Your task to perform on an android device: choose inbox layout in the gmail app Image 0: 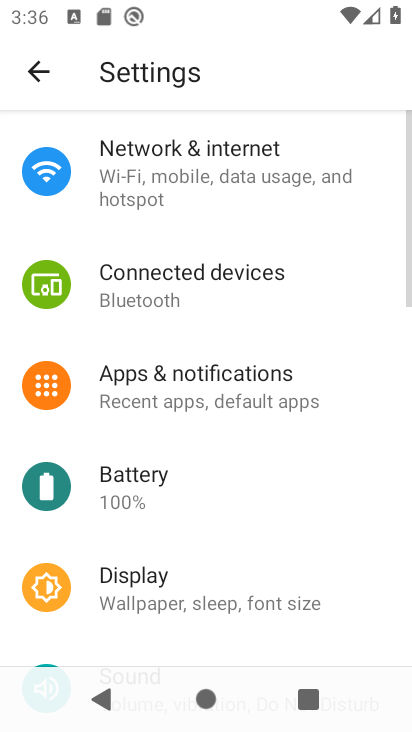
Step 0: press home button
Your task to perform on an android device: choose inbox layout in the gmail app Image 1: 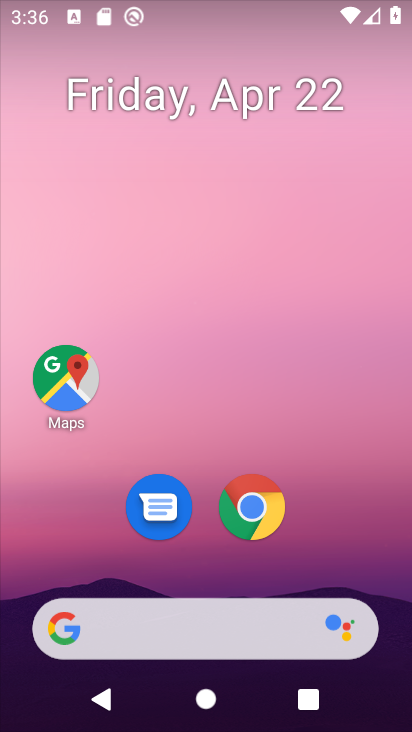
Step 1: drag from (380, 206) to (401, 36)
Your task to perform on an android device: choose inbox layout in the gmail app Image 2: 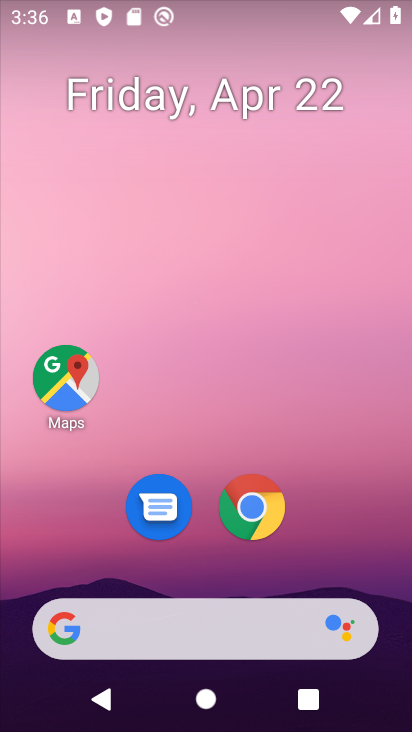
Step 2: drag from (370, 464) to (403, 49)
Your task to perform on an android device: choose inbox layout in the gmail app Image 3: 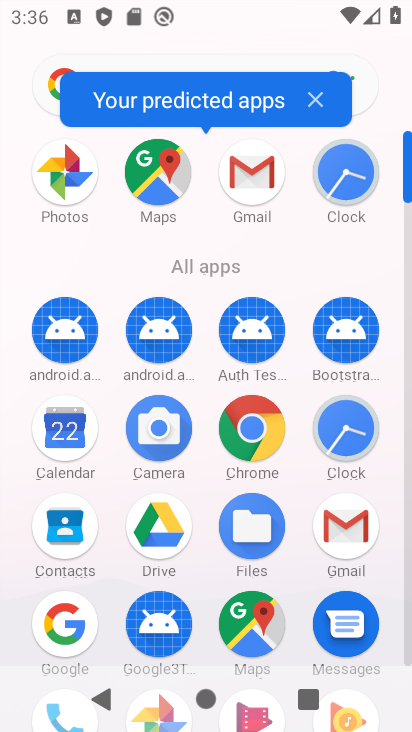
Step 3: click (242, 179)
Your task to perform on an android device: choose inbox layout in the gmail app Image 4: 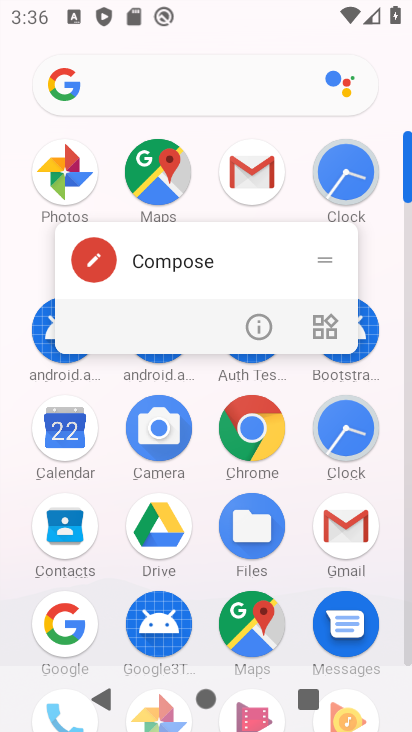
Step 4: click (242, 179)
Your task to perform on an android device: choose inbox layout in the gmail app Image 5: 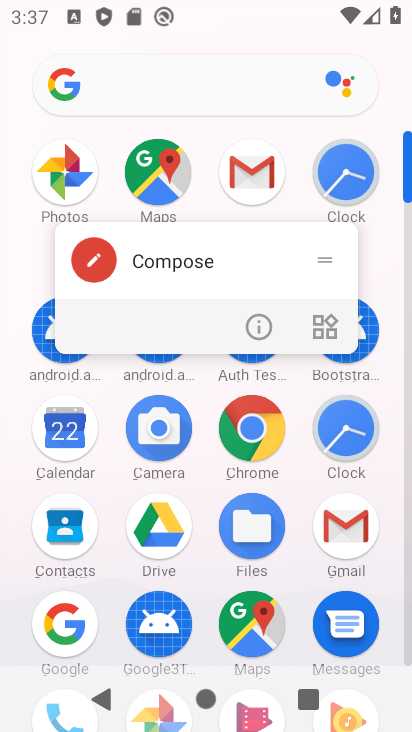
Step 5: click (242, 178)
Your task to perform on an android device: choose inbox layout in the gmail app Image 6: 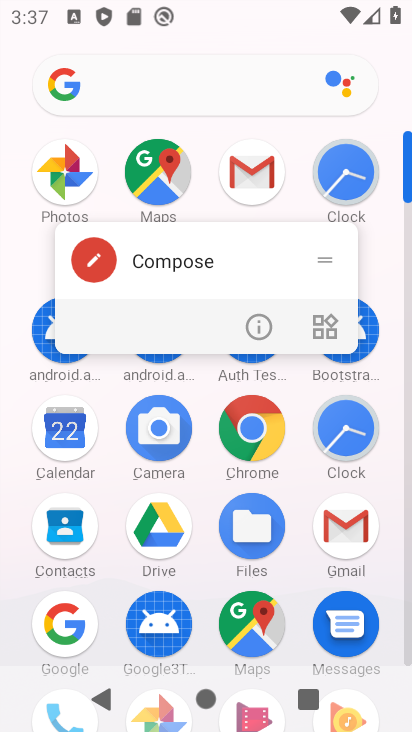
Step 6: click (242, 177)
Your task to perform on an android device: choose inbox layout in the gmail app Image 7: 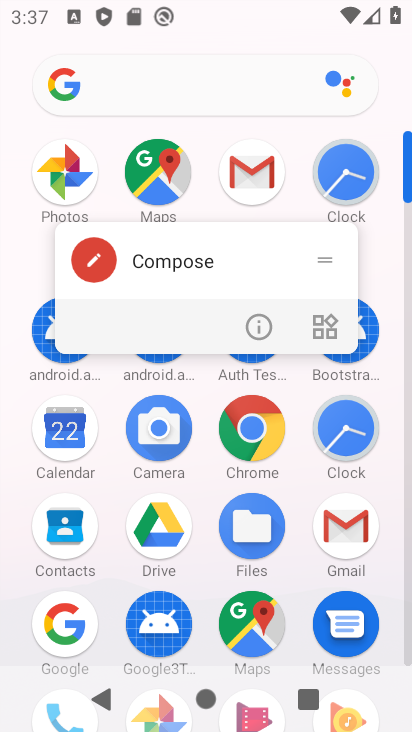
Step 7: click (250, 161)
Your task to perform on an android device: choose inbox layout in the gmail app Image 8: 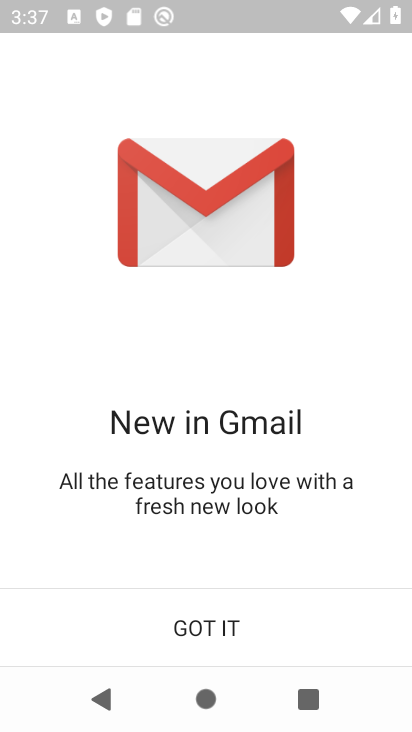
Step 8: click (192, 626)
Your task to perform on an android device: choose inbox layout in the gmail app Image 9: 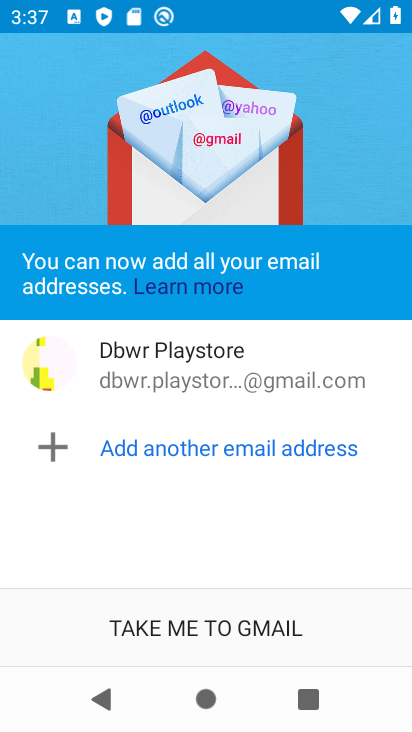
Step 9: click (250, 630)
Your task to perform on an android device: choose inbox layout in the gmail app Image 10: 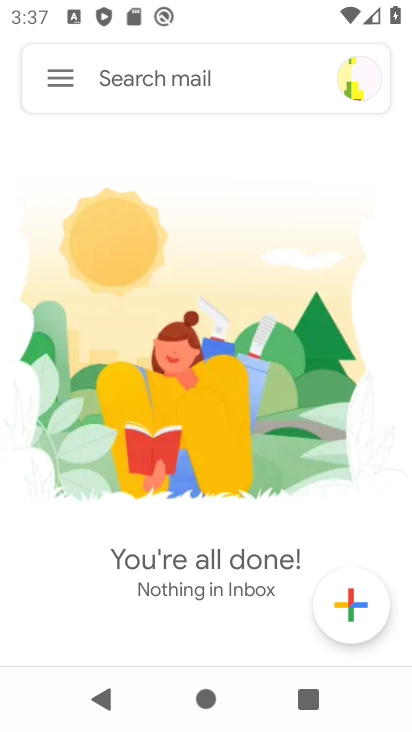
Step 10: click (62, 86)
Your task to perform on an android device: choose inbox layout in the gmail app Image 11: 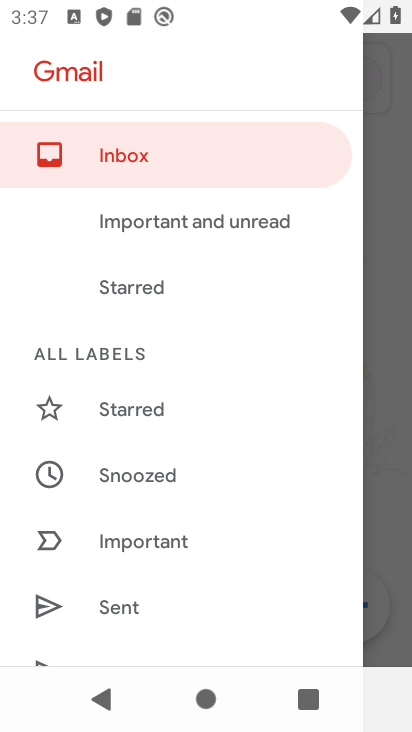
Step 11: drag from (189, 461) to (168, 107)
Your task to perform on an android device: choose inbox layout in the gmail app Image 12: 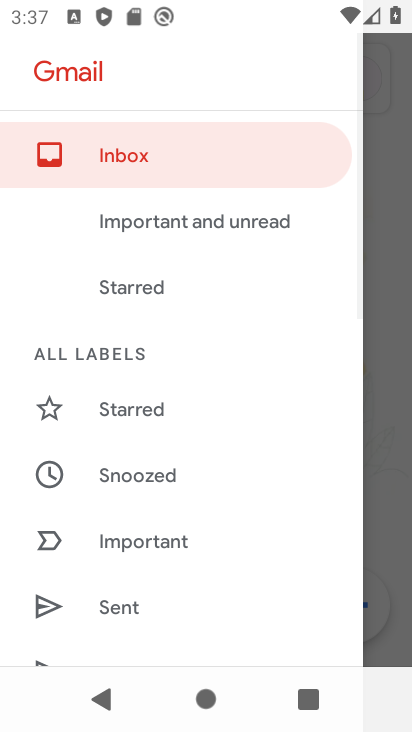
Step 12: drag from (155, 603) to (179, 194)
Your task to perform on an android device: choose inbox layout in the gmail app Image 13: 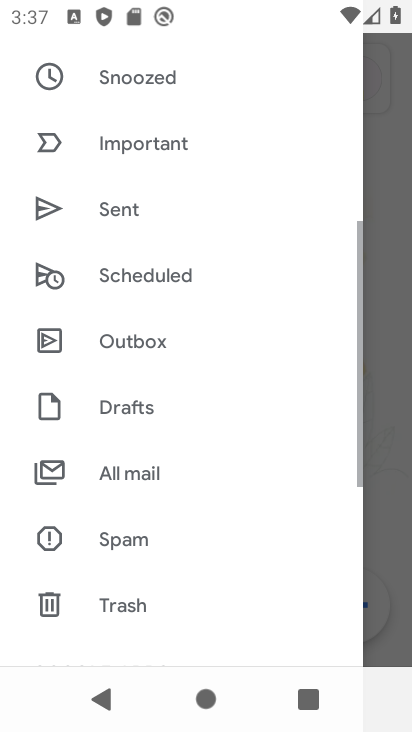
Step 13: drag from (97, 577) to (126, 146)
Your task to perform on an android device: choose inbox layout in the gmail app Image 14: 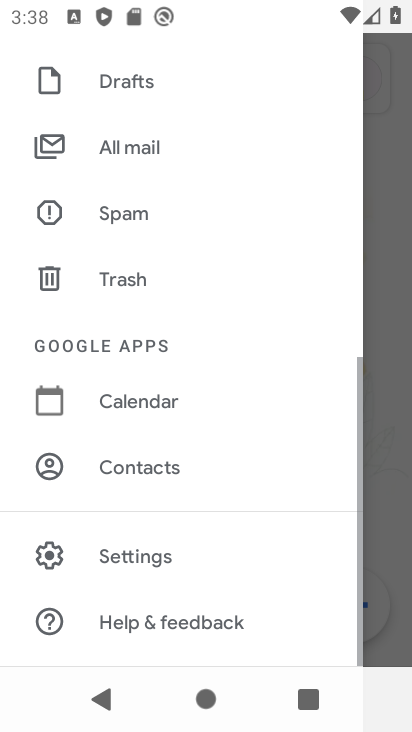
Step 14: click (111, 556)
Your task to perform on an android device: choose inbox layout in the gmail app Image 15: 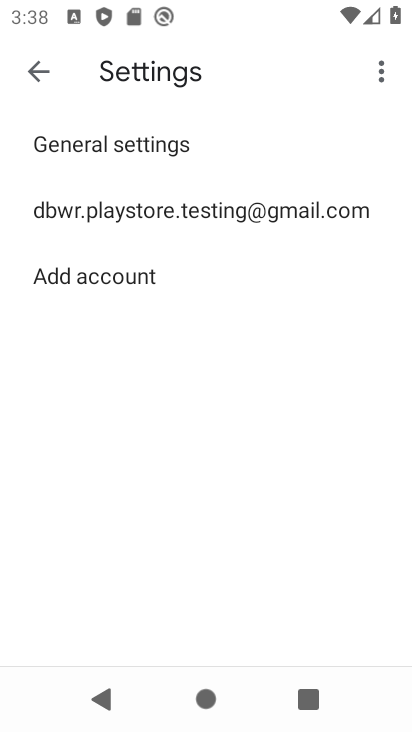
Step 15: click (131, 202)
Your task to perform on an android device: choose inbox layout in the gmail app Image 16: 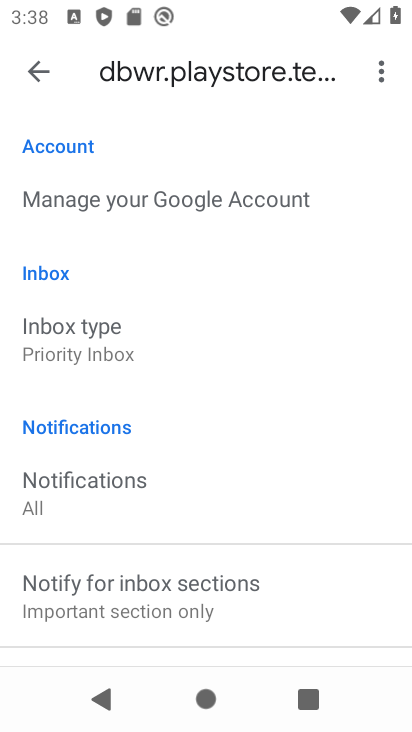
Step 16: click (48, 345)
Your task to perform on an android device: choose inbox layout in the gmail app Image 17: 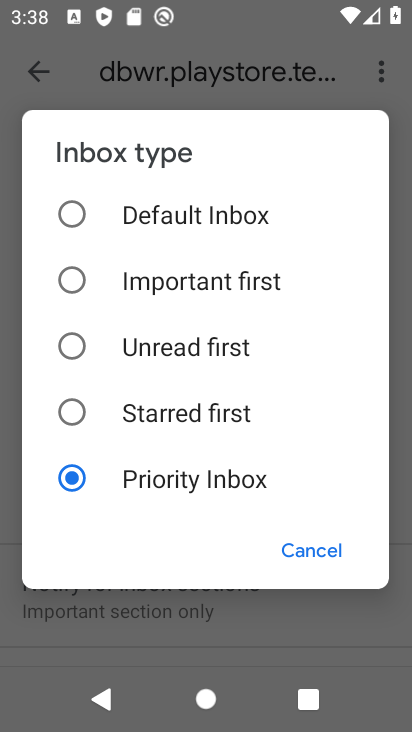
Step 17: click (58, 212)
Your task to perform on an android device: choose inbox layout in the gmail app Image 18: 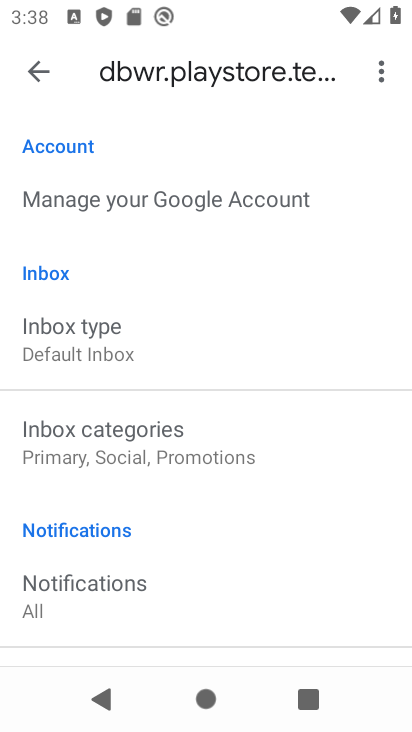
Step 18: task complete